Your task to perform on an android device: find which apps use the phone's location Image 0: 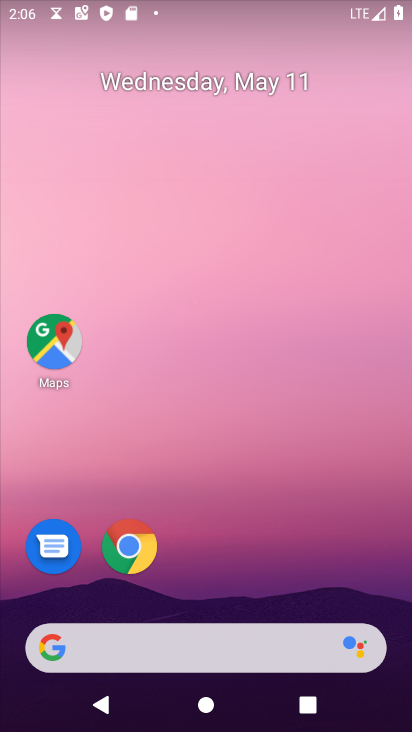
Step 0: drag from (229, 626) to (170, 113)
Your task to perform on an android device: find which apps use the phone's location Image 1: 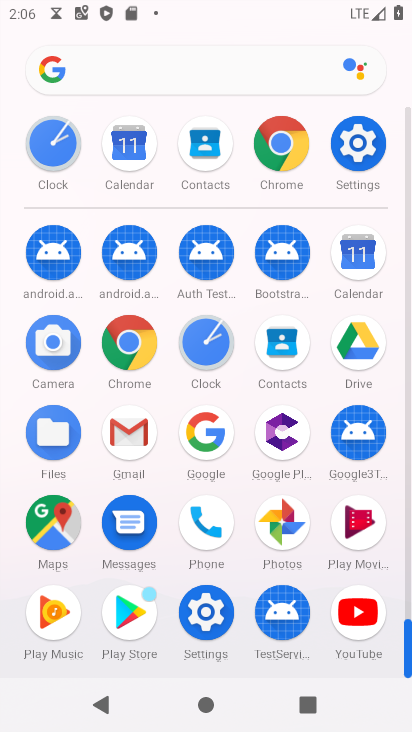
Step 1: click (364, 163)
Your task to perform on an android device: find which apps use the phone's location Image 2: 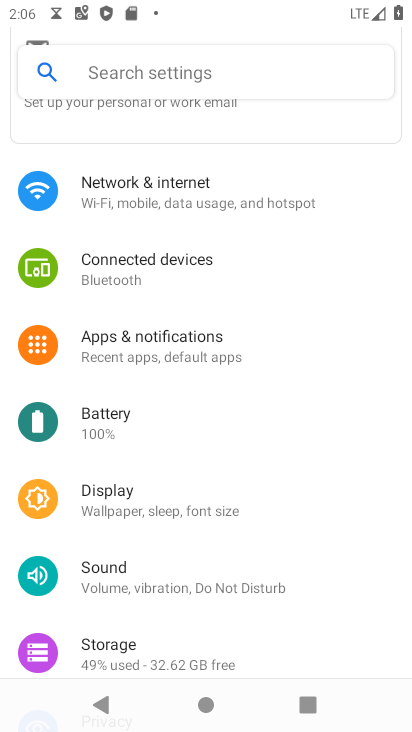
Step 2: drag from (290, 631) to (261, 224)
Your task to perform on an android device: find which apps use the phone's location Image 3: 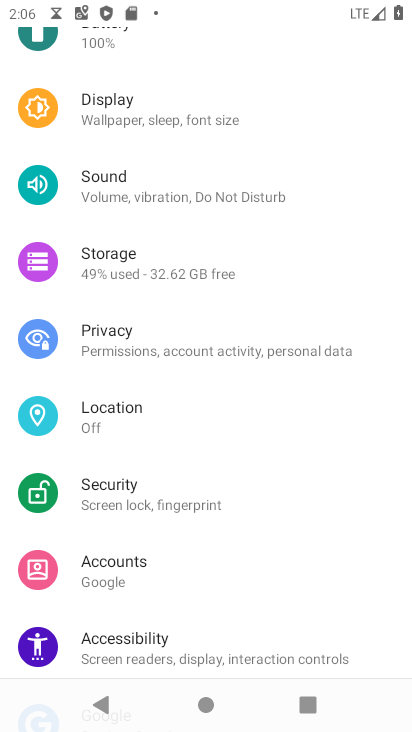
Step 3: drag from (209, 247) to (270, 584)
Your task to perform on an android device: find which apps use the phone's location Image 4: 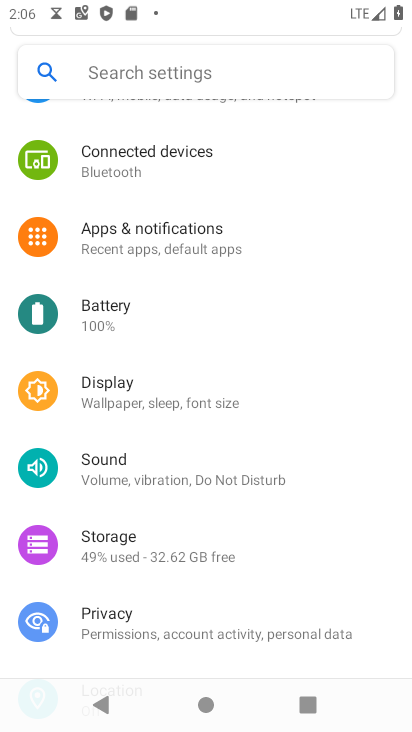
Step 4: drag from (271, 595) to (249, 241)
Your task to perform on an android device: find which apps use the phone's location Image 5: 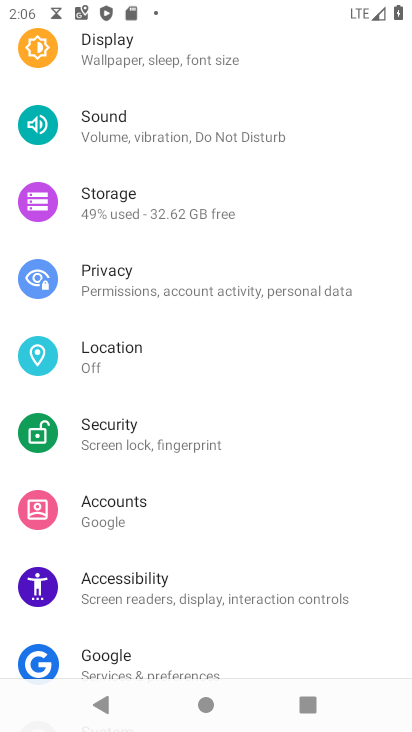
Step 5: click (131, 372)
Your task to perform on an android device: find which apps use the phone's location Image 6: 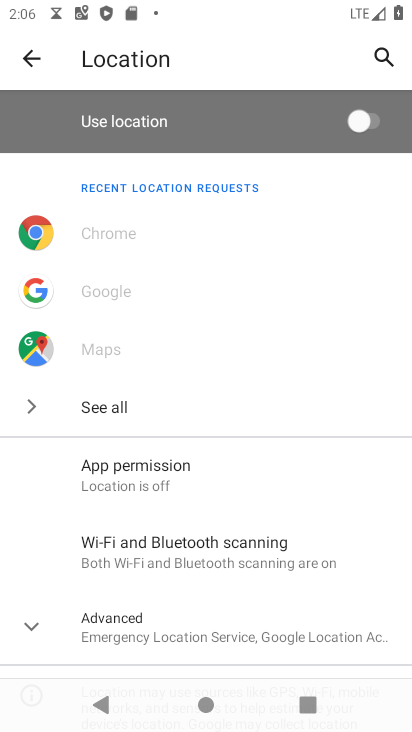
Step 6: click (182, 472)
Your task to perform on an android device: find which apps use the phone's location Image 7: 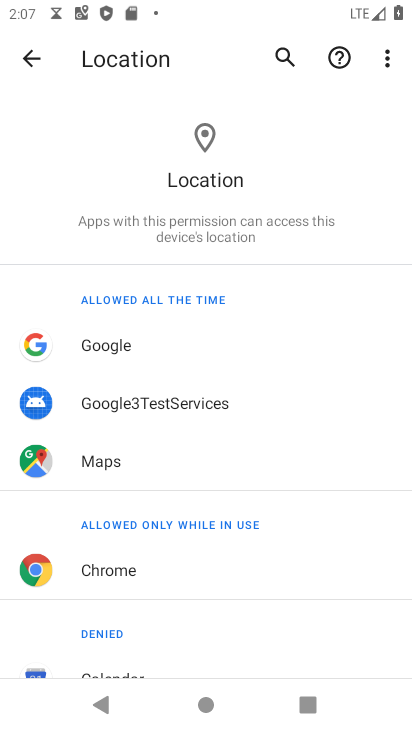
Step 7: task complete